Your task to perform on an android device: turn on translation in the chrome app Image 0: 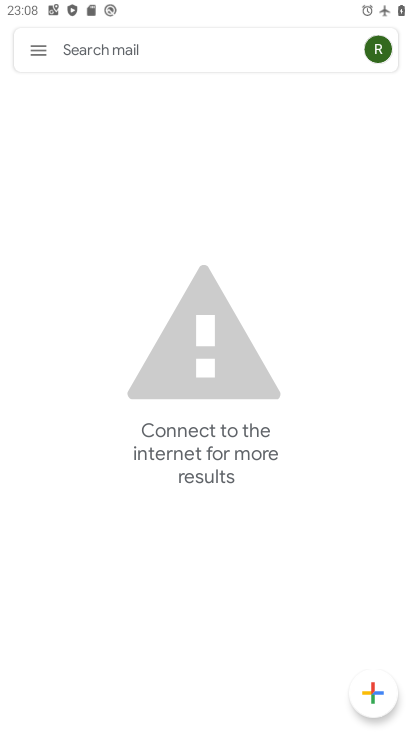
Step 0: press home button
Your task to perform on an android device: turn on translation in the chrome app Image 1: 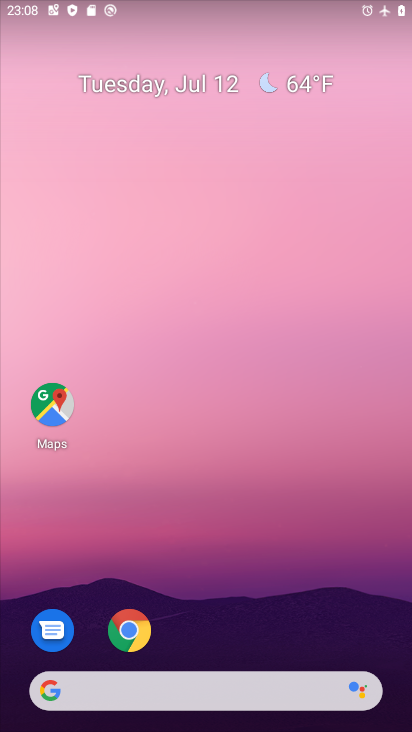
Step 1: click (113, 630)
Your task to perform on an android device: turn on translation in the chrome app Image 2: 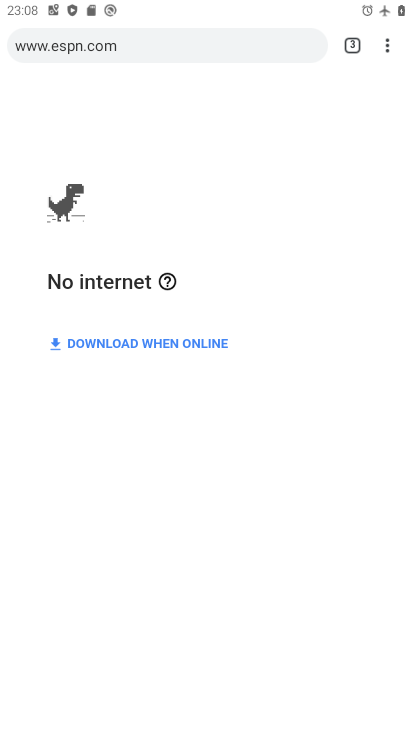
Step 2: press home button
Your task to perform on an android device: turn on translation in the chrome app Image 3: 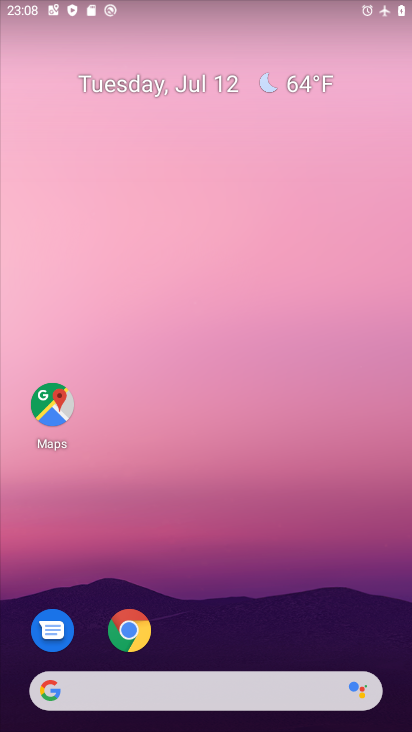
Step 3: drag from (182, 664) to (172, 128)
Your task to perform on an android device: turn on translation in the chrome app Image 4: 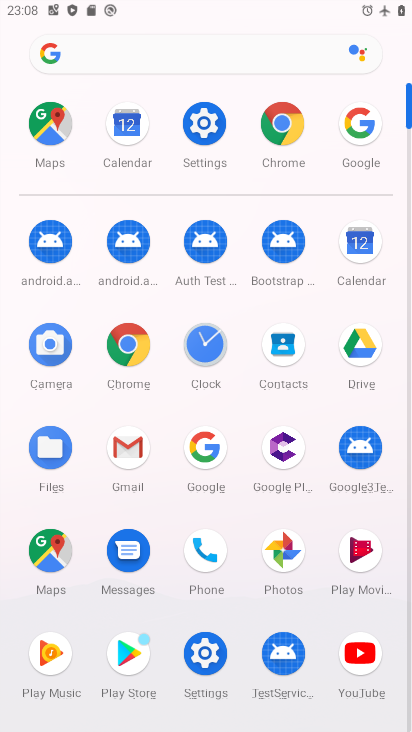
Step 4: click (133, 347)
Your task to perform on an android device: turn on translation in the chrome app Image 5: 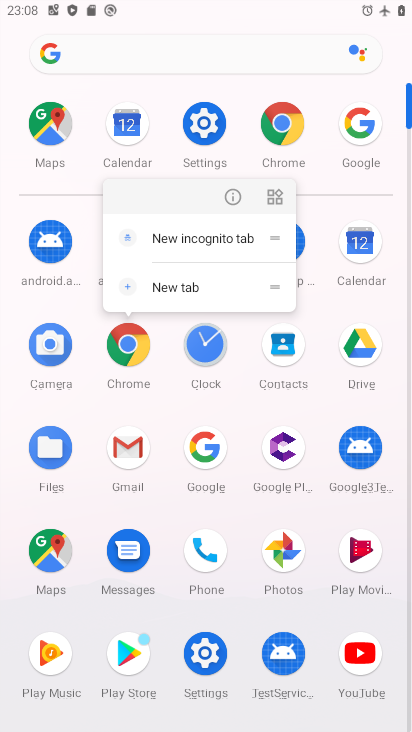
Step 5: click (136, 355)
Your task to perform on an android device: turn on translation in the chrome app Image 6: 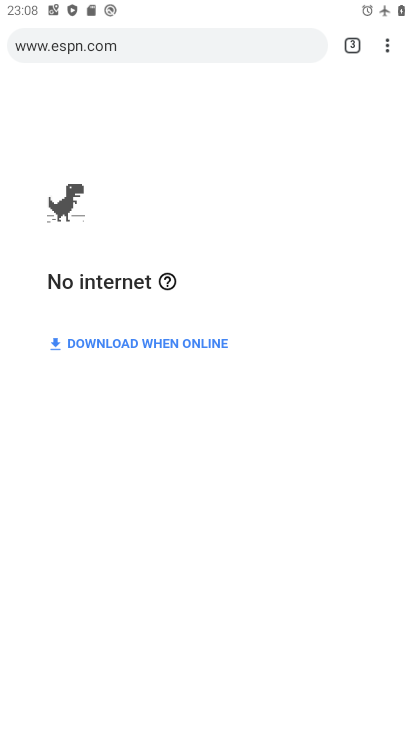
Step 6: drag from (387, 41) to (231, 509)
Your task to perform on an android device: turn on translation in the chrome app Image 7: 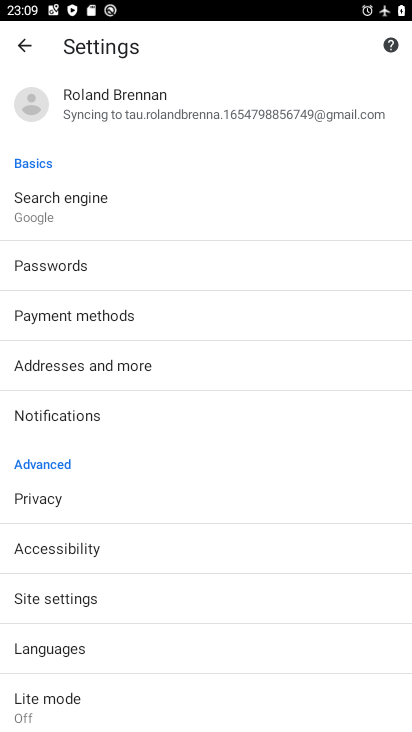
Step 7: drag from (149, 590) to (133, 290)
Your task to perform on an android device: turn on translation in the chrome app Image 8: 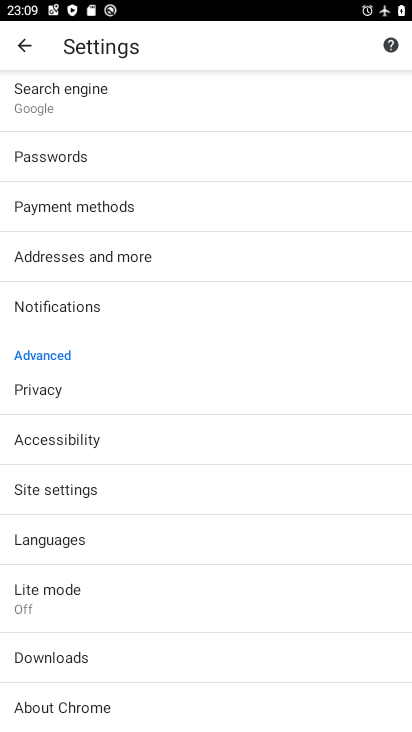
Step 8: click (43, 533)
Your task to perform on an android device: turn on translation in the chrome app Image 9: 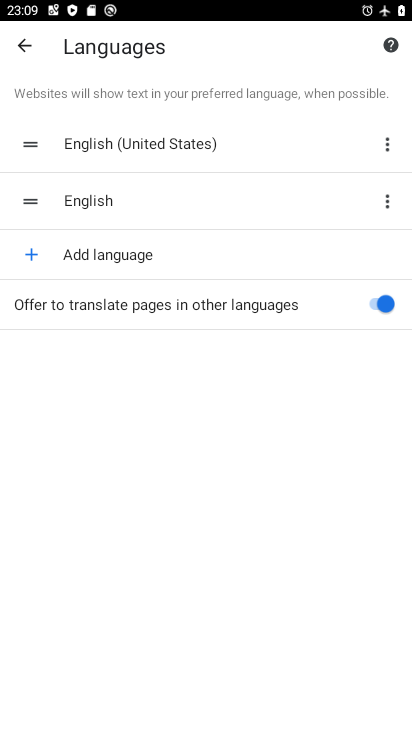
Step 9: task complete